Your task to perform on an android device: install app "TextNow: Call + Text Unlimited" Image 0: 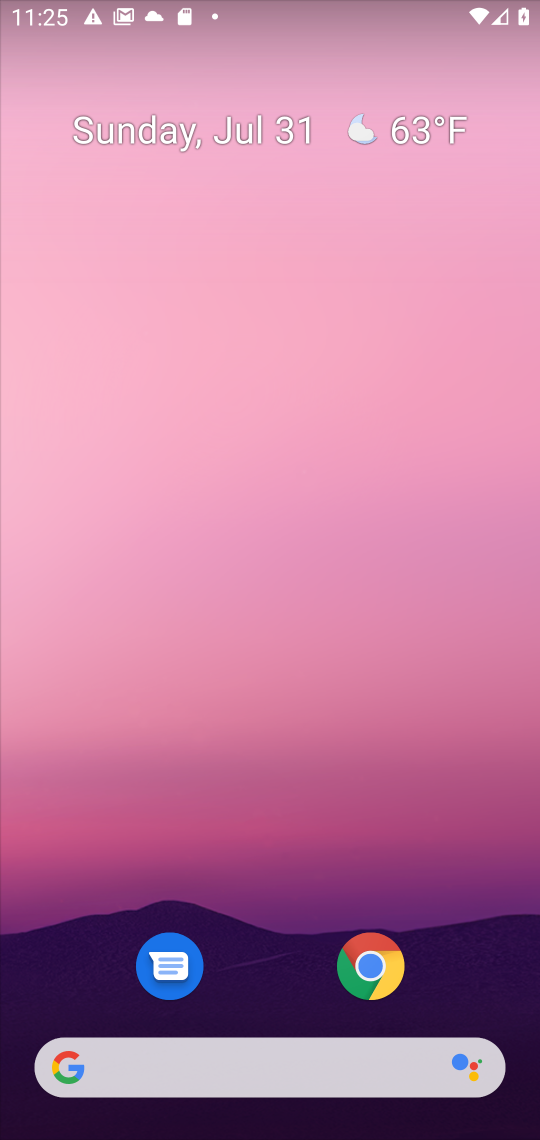
Step 0: drag from (245, 974) to (329, 10)
Your task to perform on an android device: install app "TextNow: Call + Text Unlimited" Image 1: 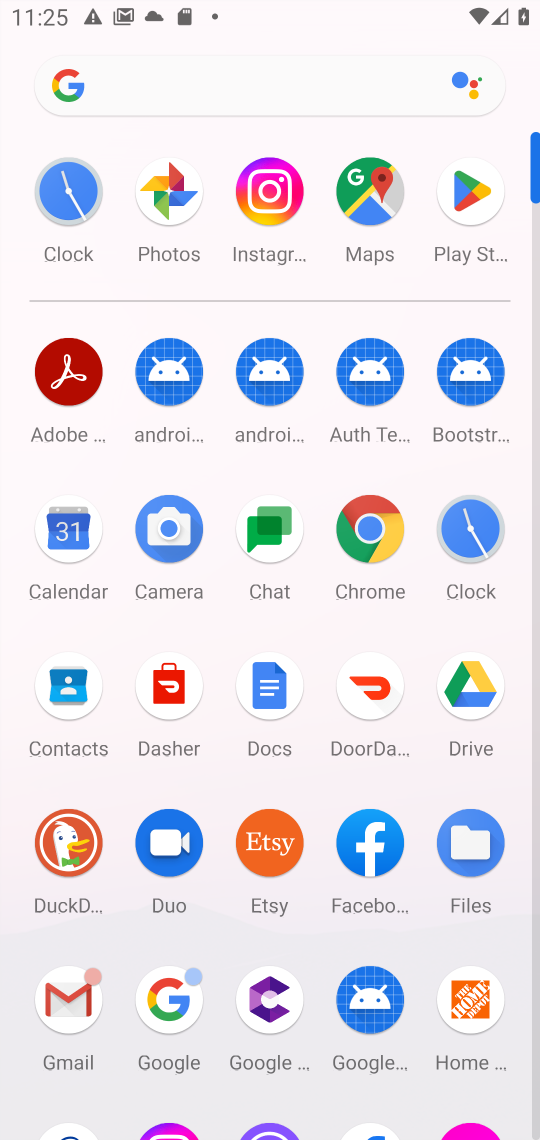
Step 1: drag from (222, 941) to (275, 524)
Your task to perform on an android device: install app "TextNow: Call + Text Unlimited" Image 2: 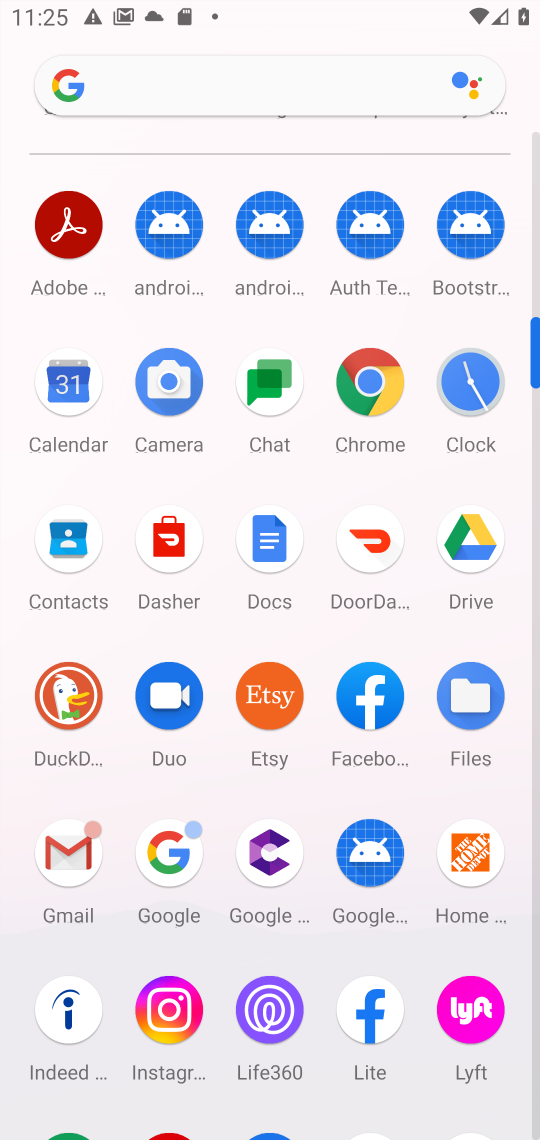
Step 2: drag from (223, 946) to (242, 344)
Your task to perform on an android device: install app "TextNow: Call + Text Unlimited" Image 3: 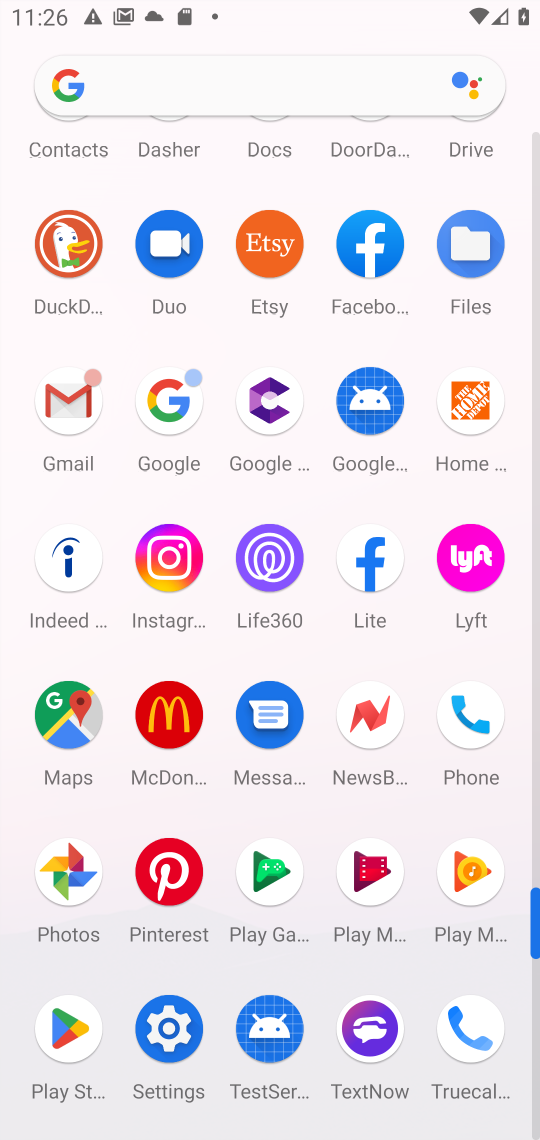
Step 3: click (55, 1022)
Your task to perform on an android device: install app "TextNow: Call + Text Unlimited" Image 4: 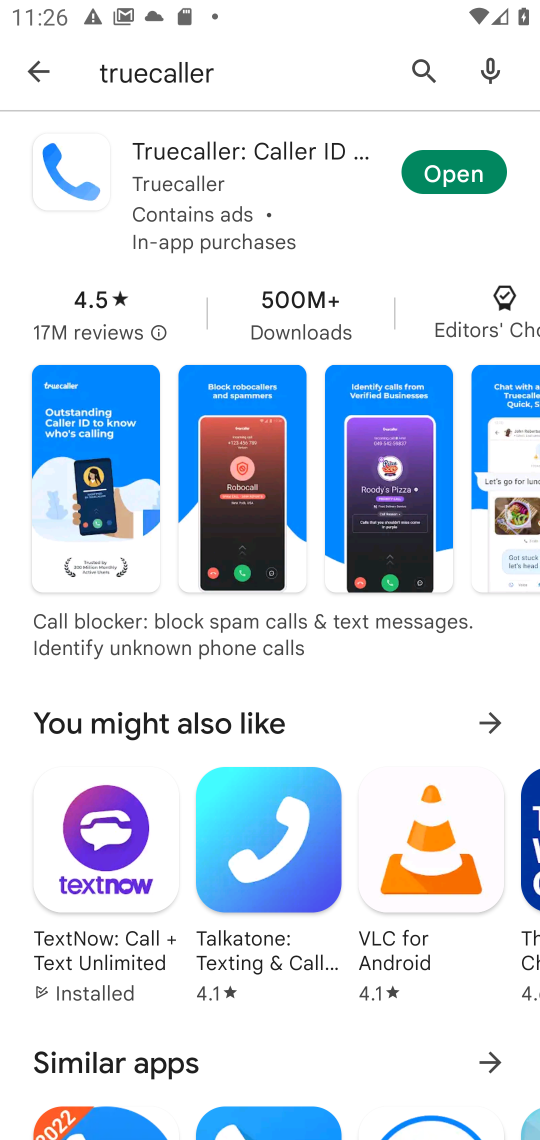
Step 4: click (246, 84)
Your task to perform on an android device: install app "TextNow: Call + Text Unlimited" Image 5: 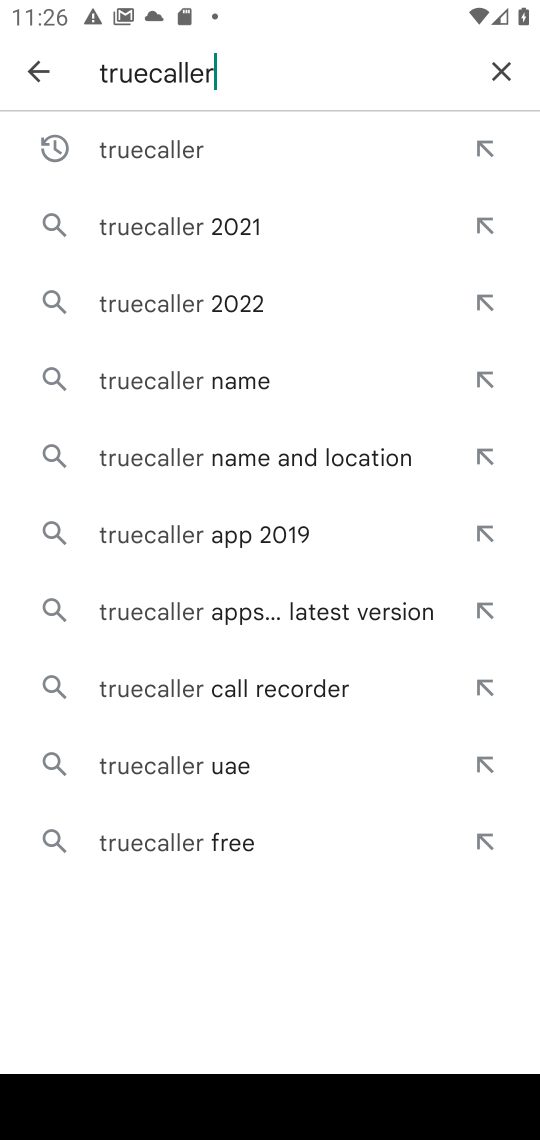
Step 5: click (507, 60)
Your task to perform on an android device: install app "TextNow: Call + Text Unlimited" Image 6: 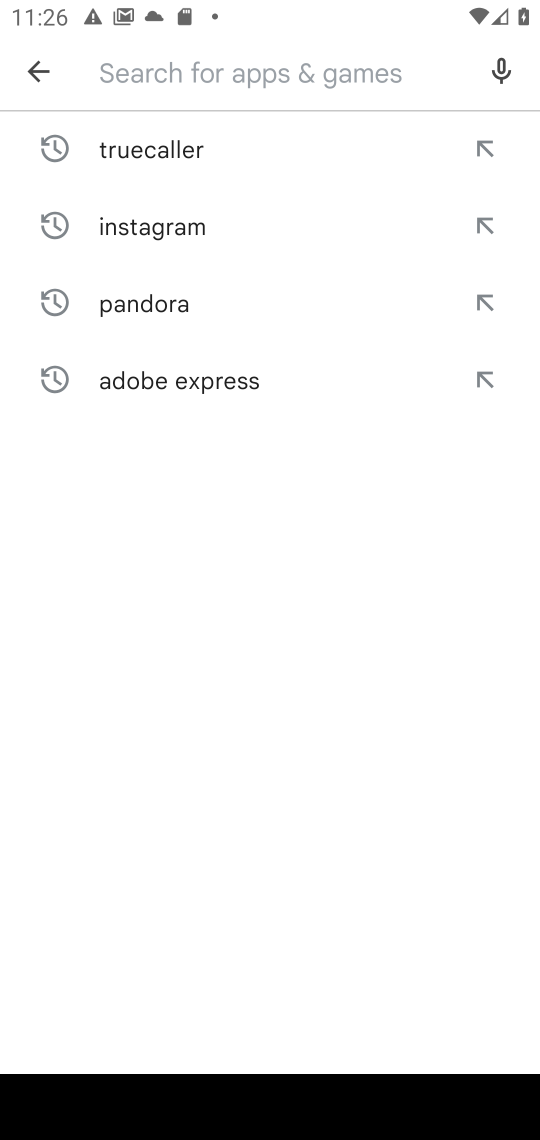
Step 6: type "textnow"
Your task to perform on an android device: install app "TextNow: Call + Text Unlimited" Image 7: 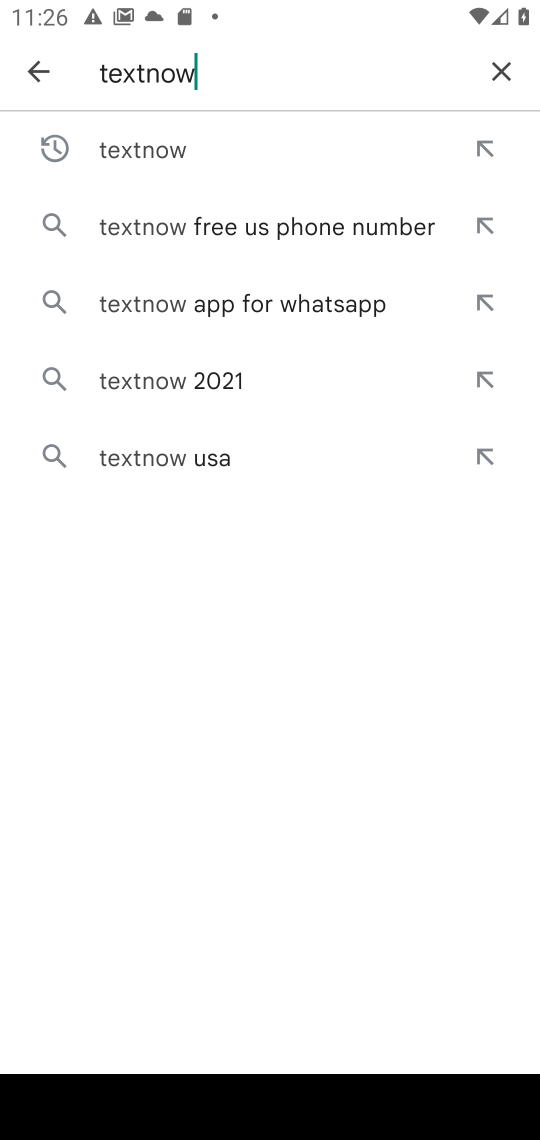
Step 7: click (182, 161)
Your task to perform on an android device: install app "TextNow: Call + Text Unlimited" Image 8: 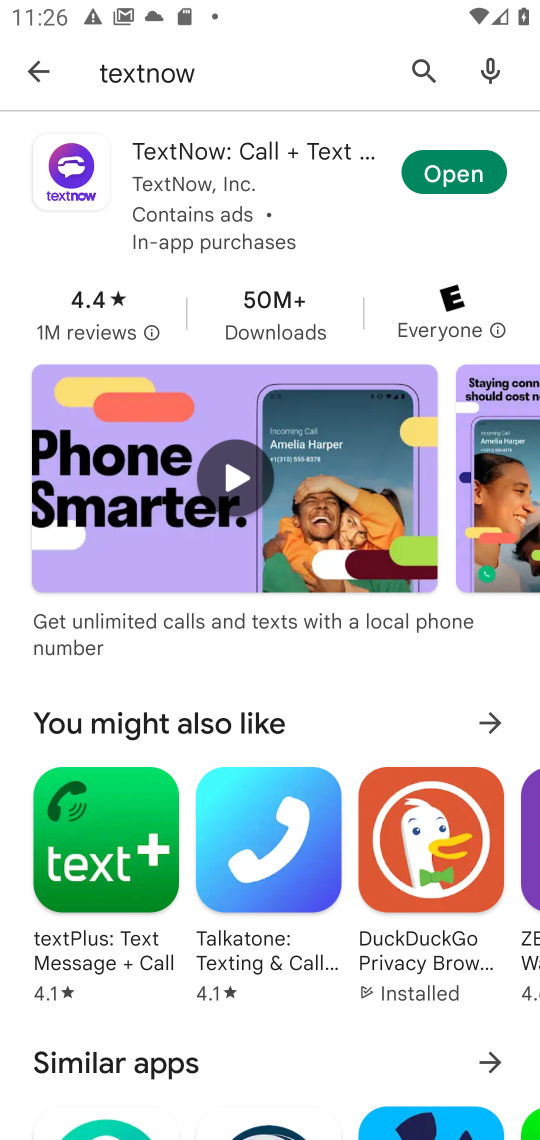
Step 8: task complete